Your task to perform on an android device: Go to accessibility settings Image 0: 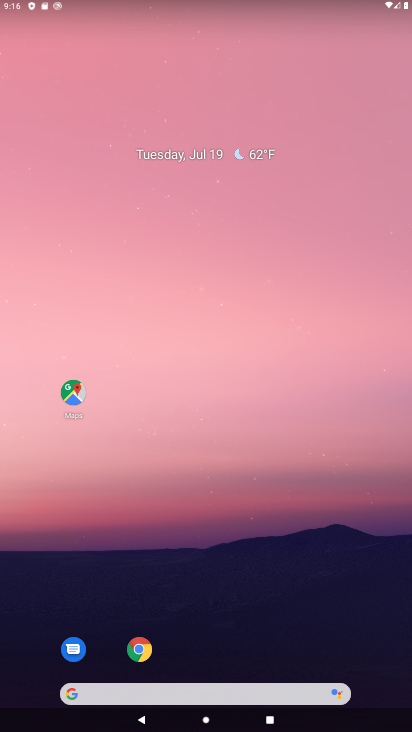
Step 0: drag from (294, 583) to (351, 1)
Your task to perform on an android device: Go to accessibility settings Image 1: 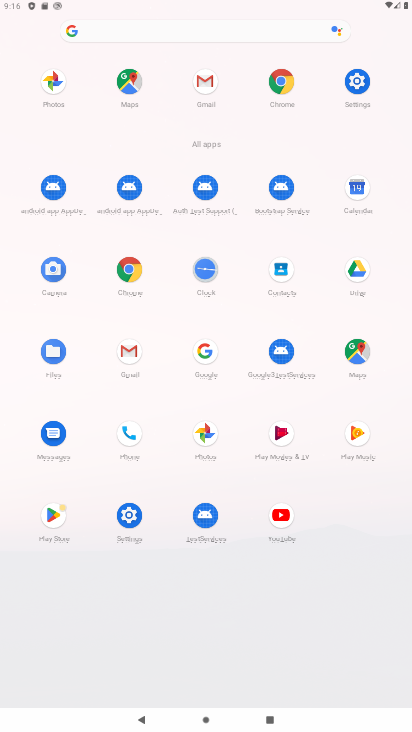
Step 1: click (367, 80)
Your task to perform on an android device: Go to accessibility settings Image 2: 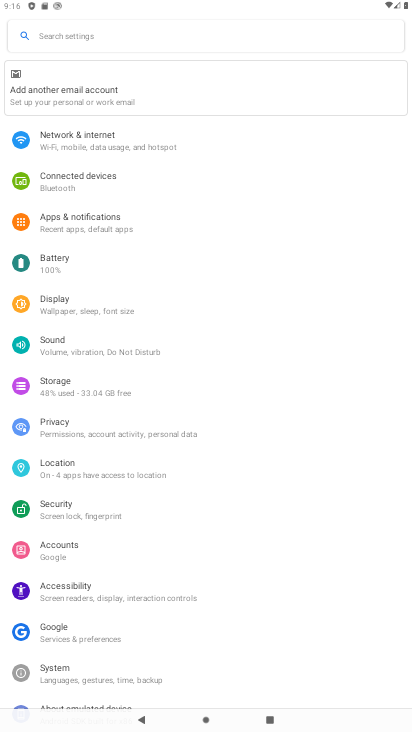
Step 2: click (124, 588)
Your task to perform on an android device: Go to accessibility settings Image 3: 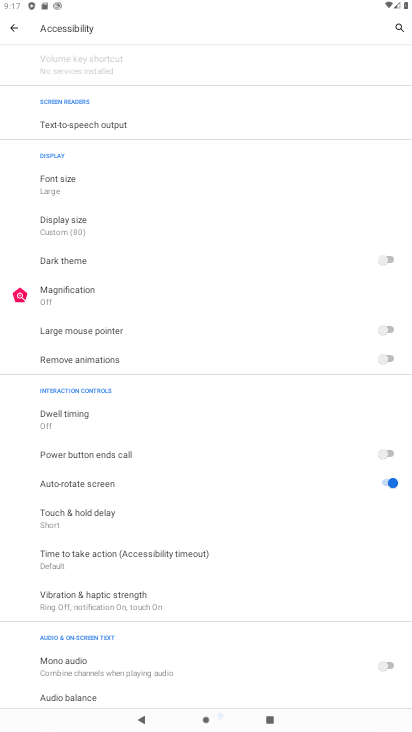
Step 3: task complete